Your task to perform on an android device: How much does a 2 bedroom apartment rent for in Boston? Image 0: 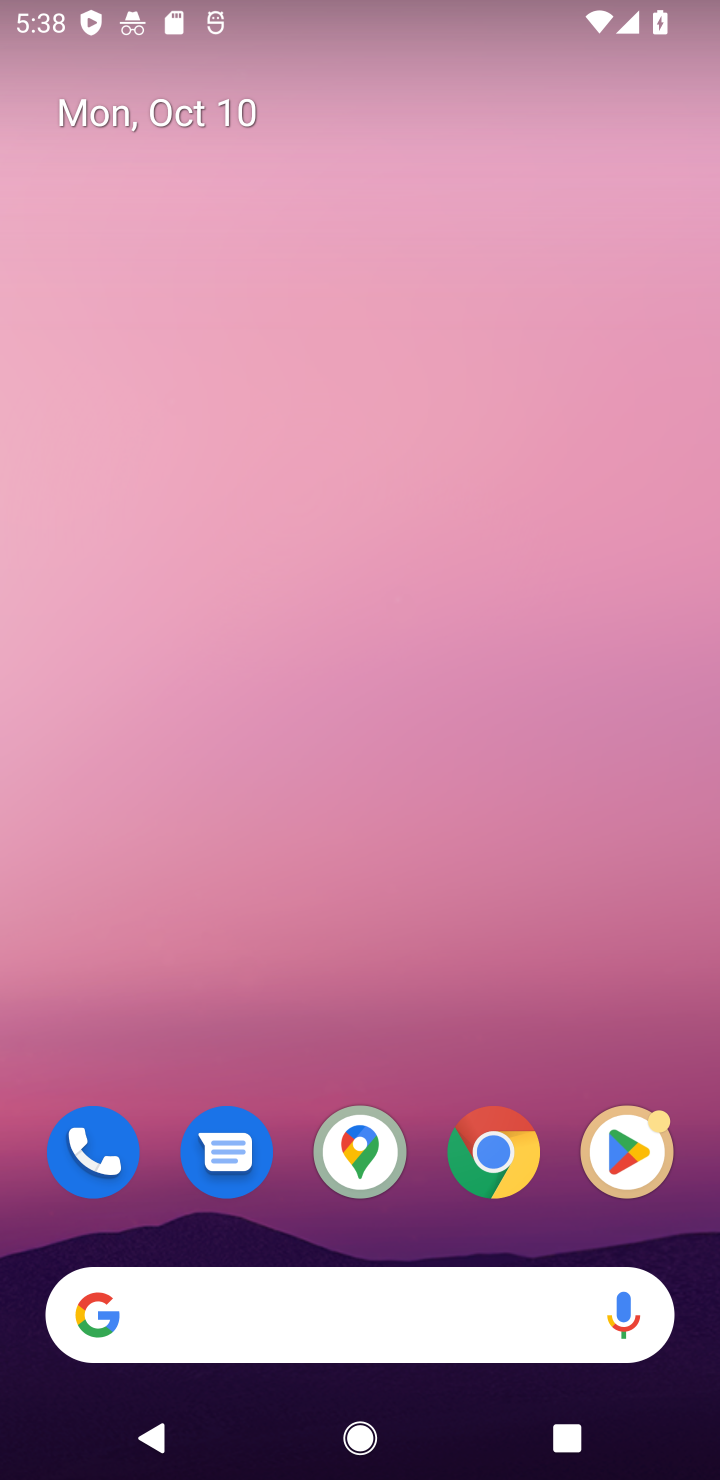
Step 0: click (496, 1153)
Your task to perform on an android device: How much does a 2 bedroom apartment rent for in Boston? Image 1: 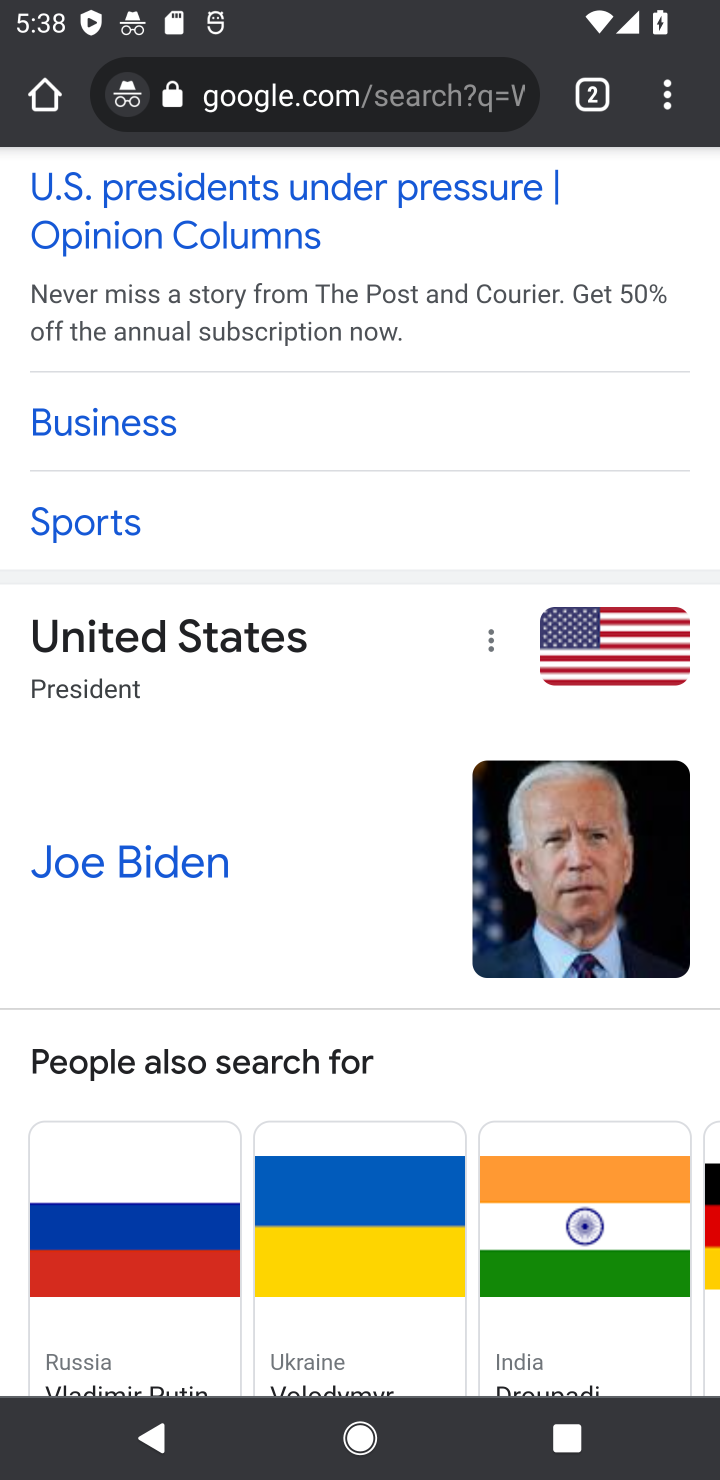
Step 1: click (404, 93)
Your task to perform on an android device: How much does a 2 bedroom apartment rent for in Boston? Image 2: 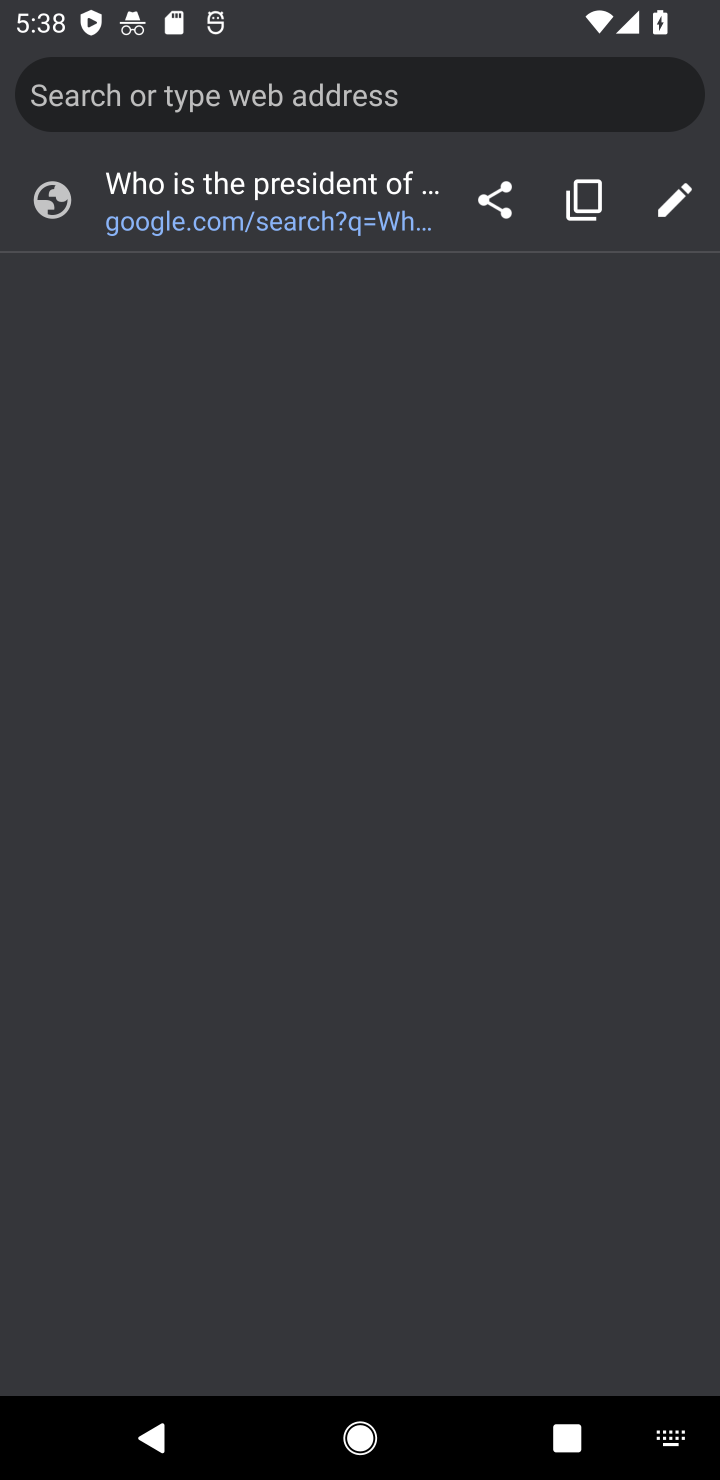
Step 2: type "How much does a 2 bedroom apartment rent for in Boston?"
Your task to perform on an android device: How much does a 2 bedroom apartment rent for in Boston? Image 3: 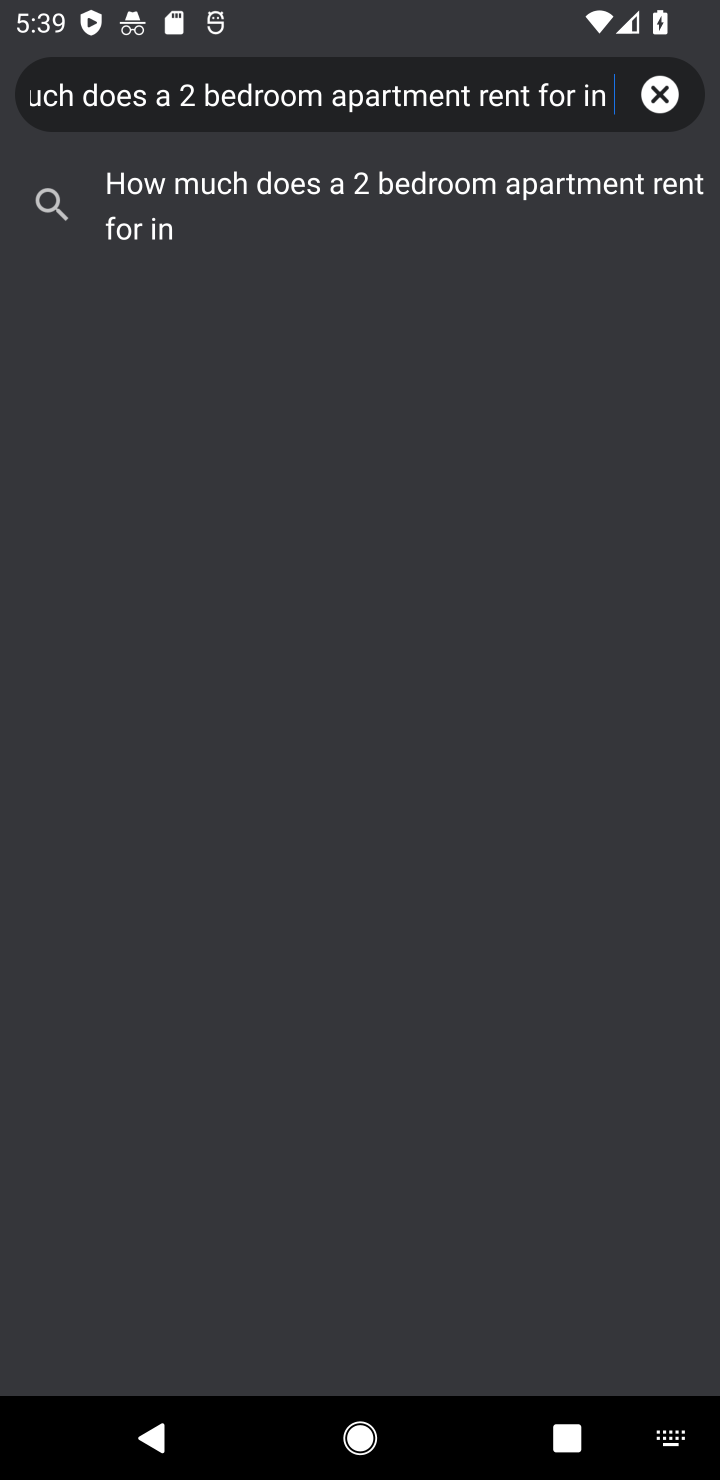
Step 3: type "Boston"
Your task to perform on an android device: How much does a 2 bedroom apartment rent for in Boston? Image 4: 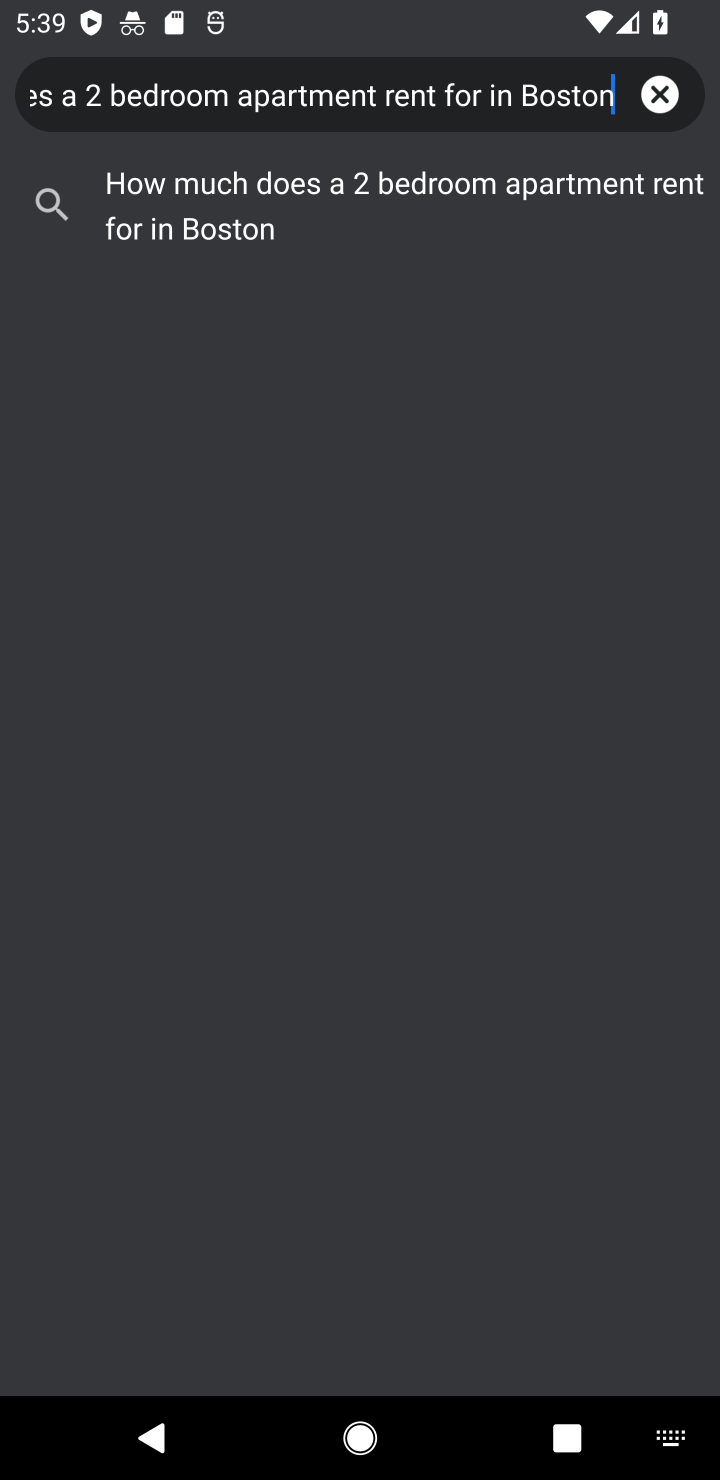
Step 4: click (294, 220)
Your task to perform on an android device: How much does a 2 bedroom apartment rent for in Boston? Image 5: 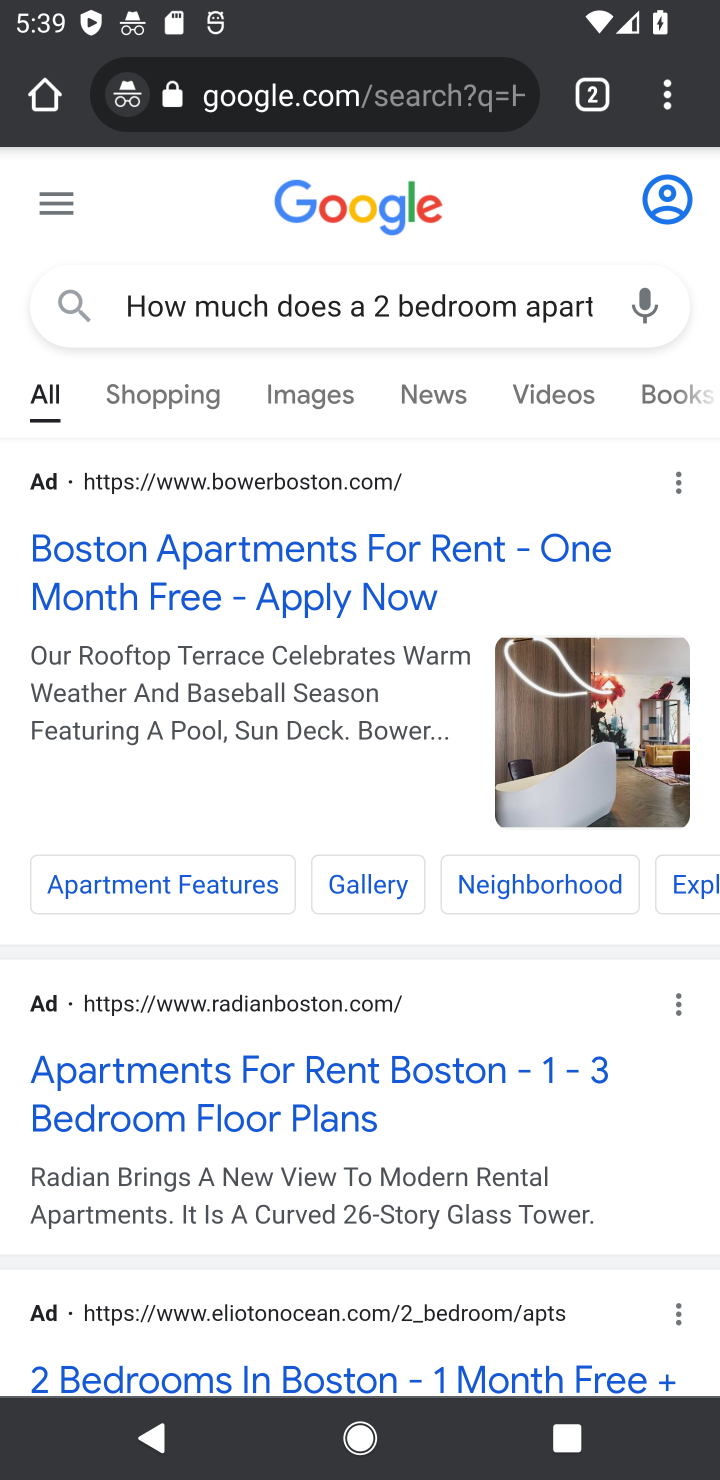
Step 5: drag from (246, 1267) to (503, 718)
Your task to perform on an android device: How much does a 2 bedroom apartment rent for in Boston? Image 6: 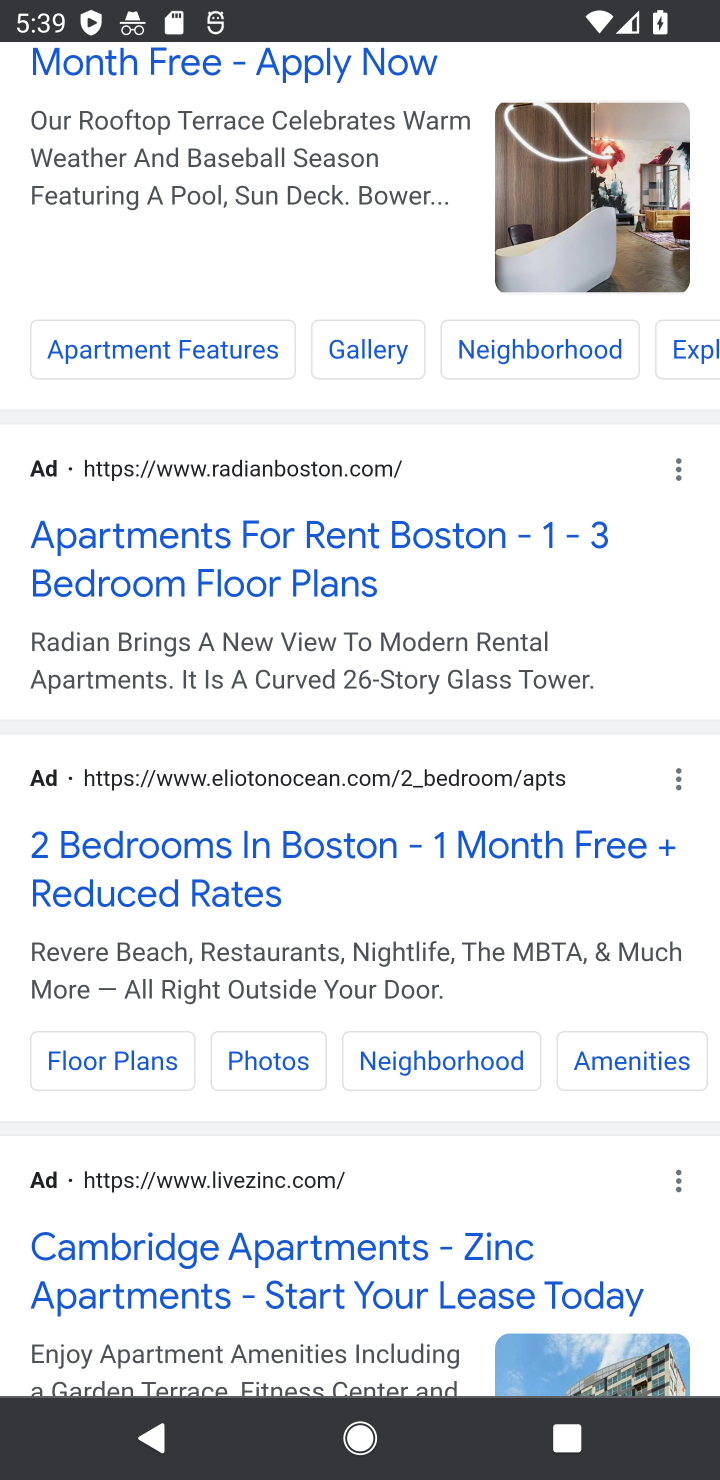
Step 6: drag from (258, 1272) to (429, 821)
Your task to perform on an android device: How much does a 2 bedroom apartment rent for in Boston? Image 7: 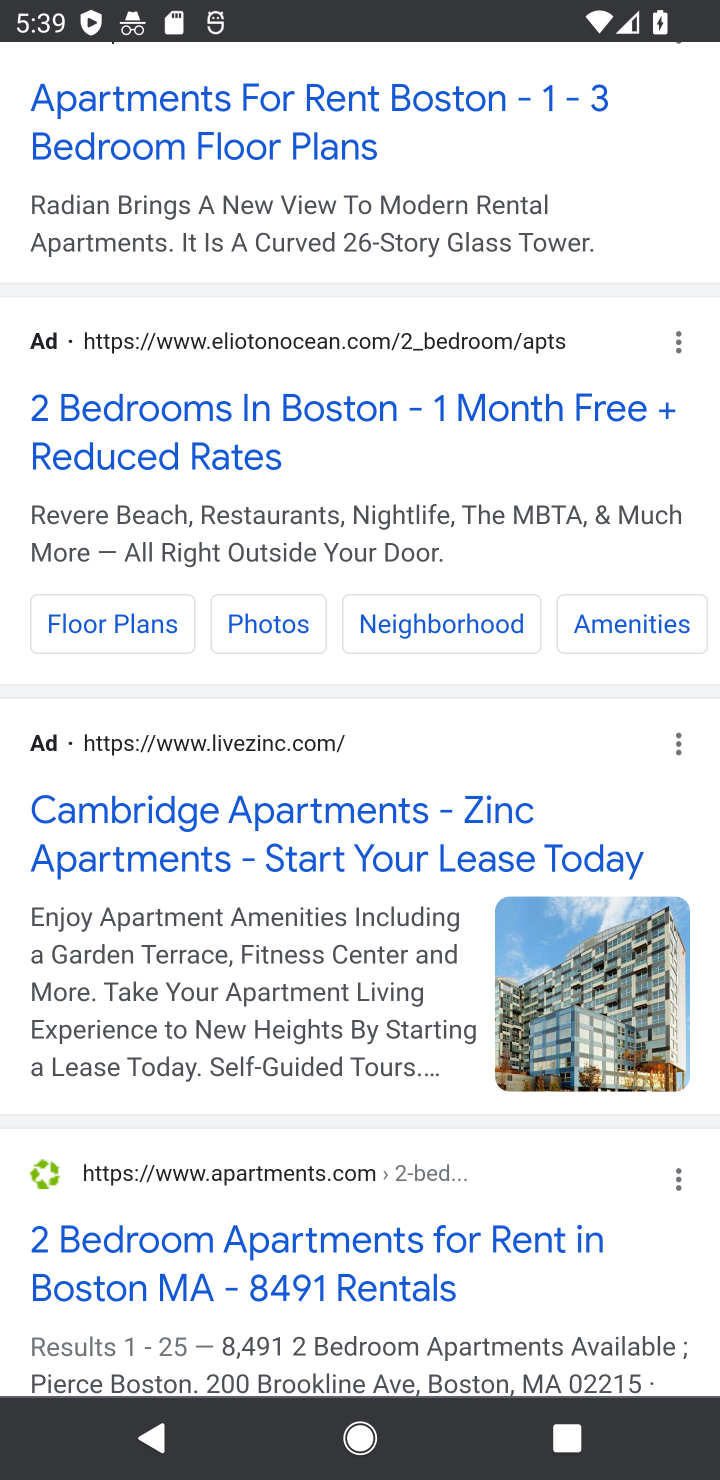
Step 7: drag from (230, 1281) to (394, 726)
Your task to perform on an android device: How much does a 2 bedroom apartment rent for in Boston? Image 8: 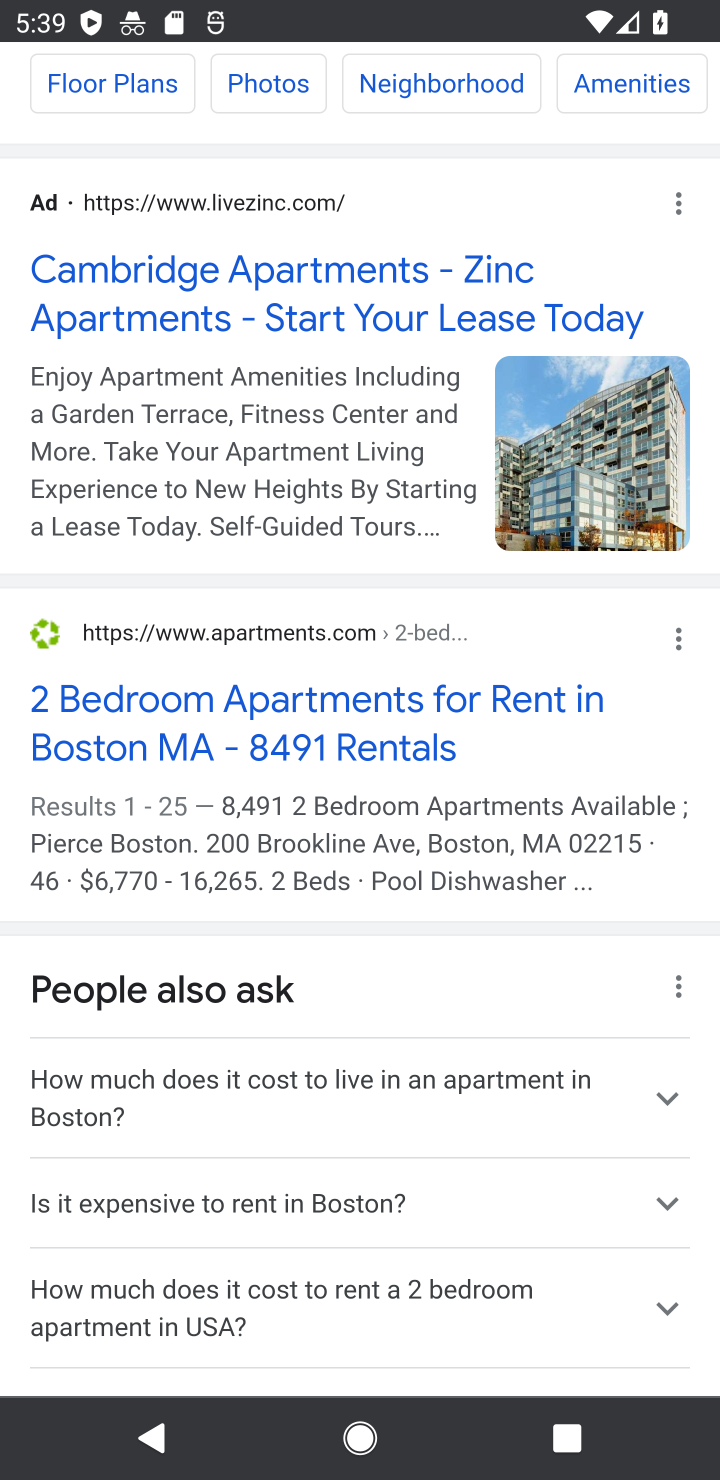
Step 8: click (250, 773)
Your task to perform on an android device: How much does a 2 bedroom apartment rent for in Boston? Image 9: 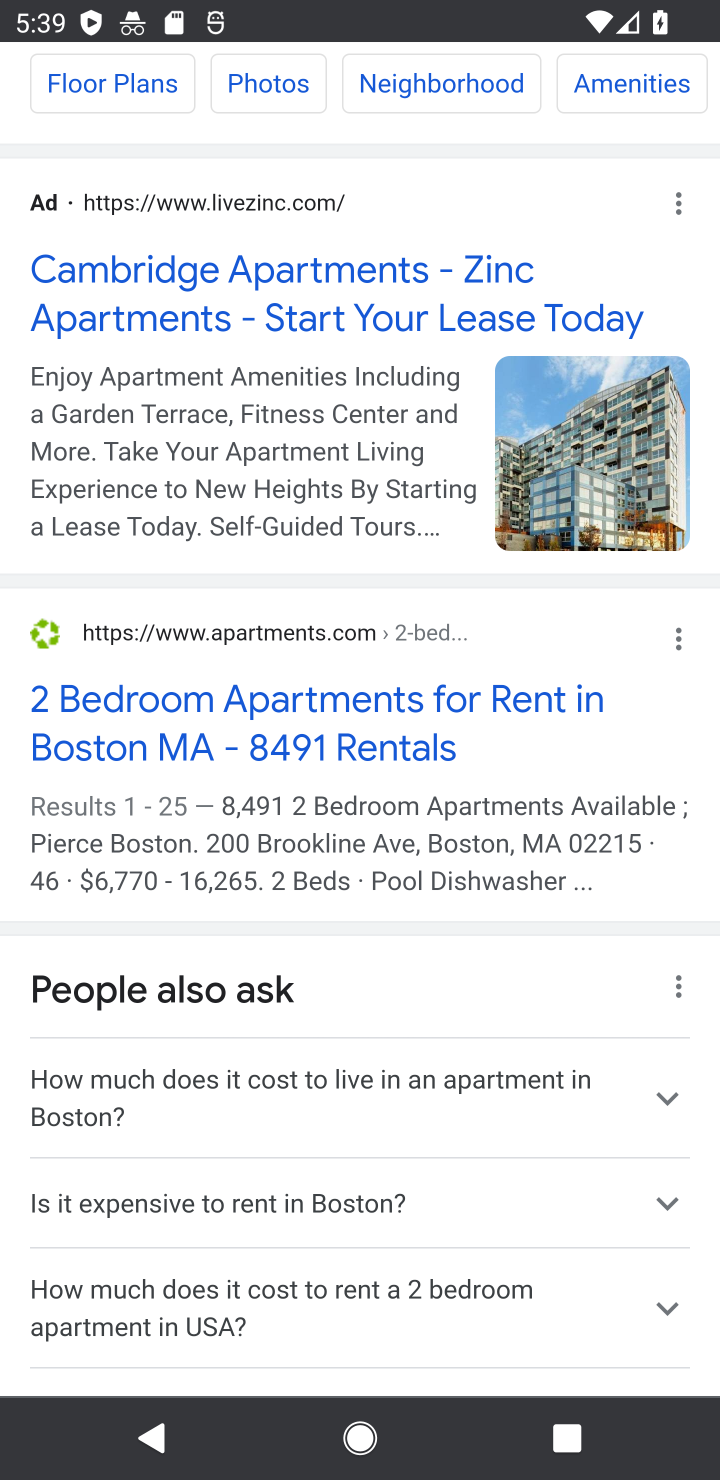
Step 9: drag from (379, 1304) to (573, 782)
Your task to perform on an android device: How much does a 2 bedroom apartment rent for in Boston? Image 10: 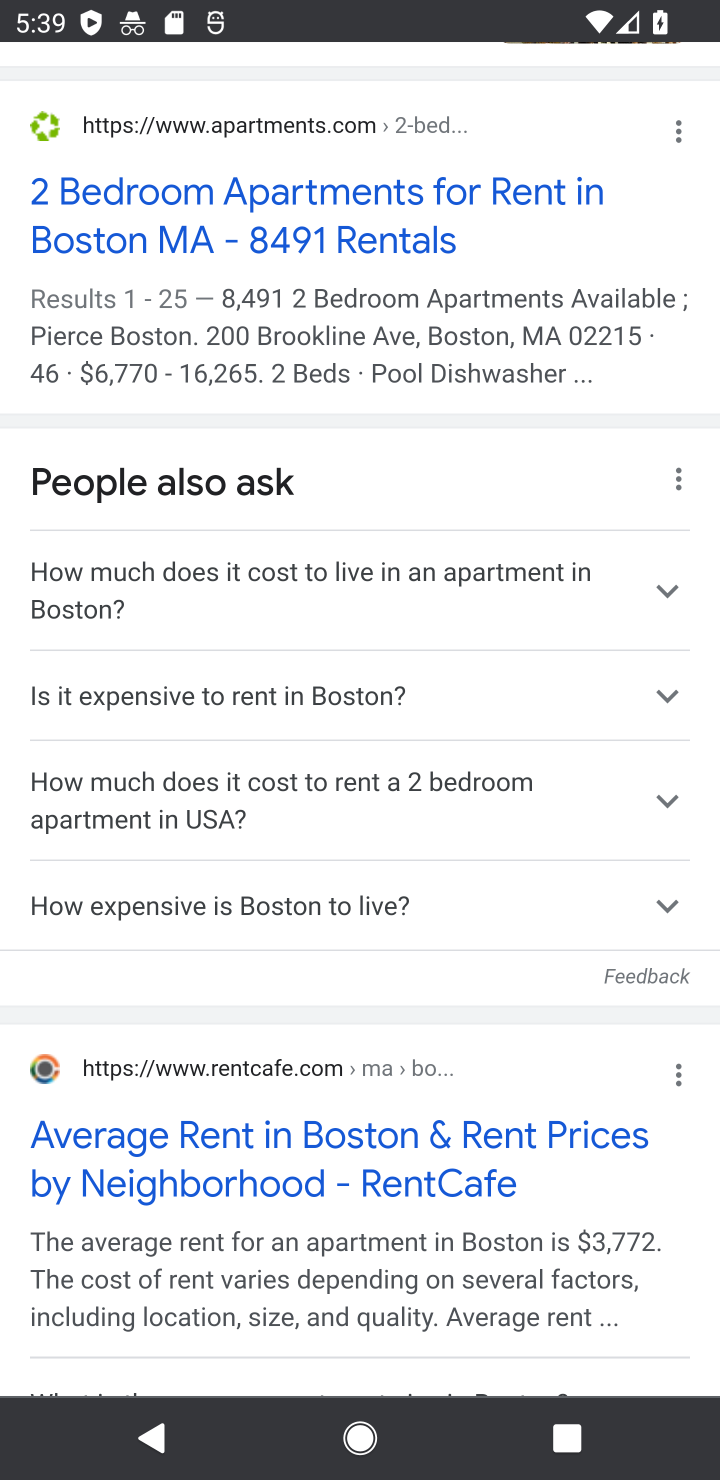
Step 10: drag from (374, 594) to (240, 1279)
Your task to perform on an android device: How much does a 2 bedroom apartment rent for in Boston? Image 11: 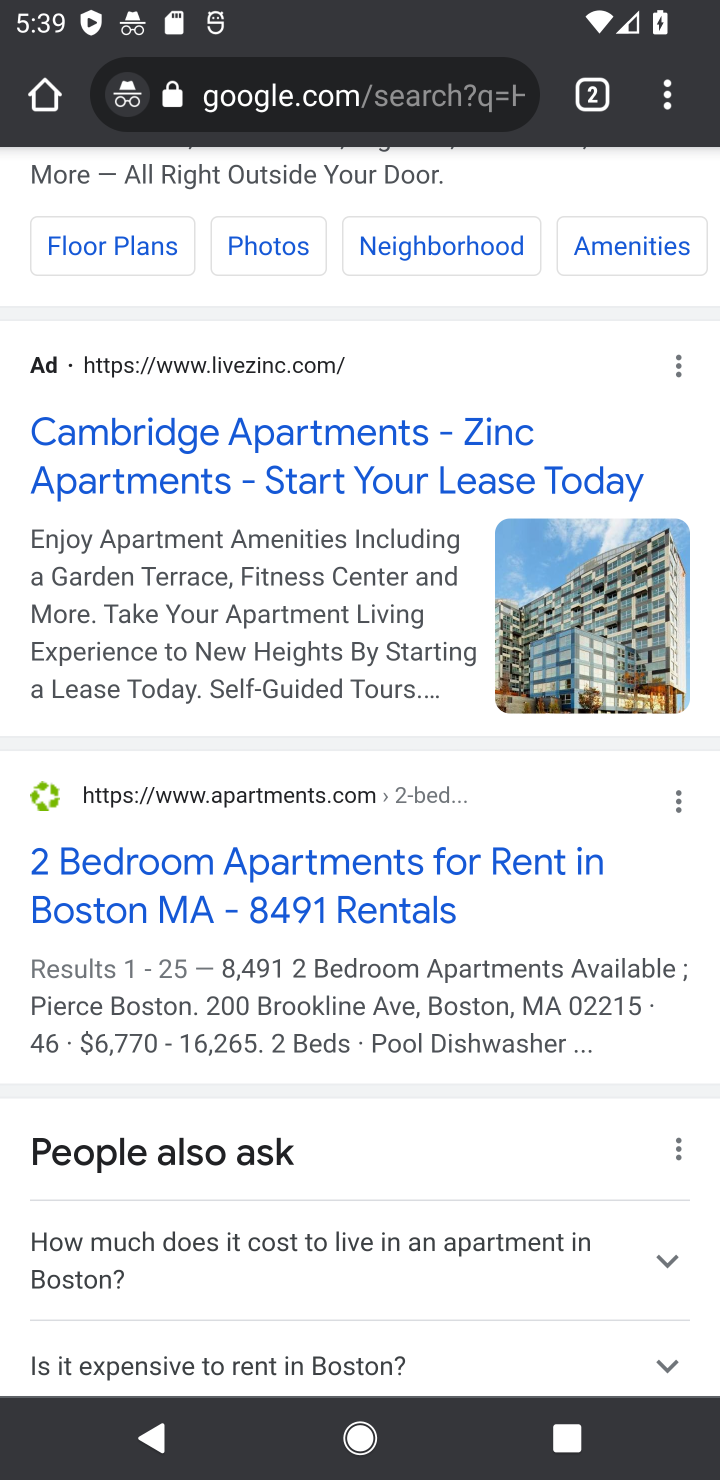
Step 11: click (179, 508)
Your task to perform on an android device: How much does a 2 bedroom apartment rent for in Boston? Image 12: 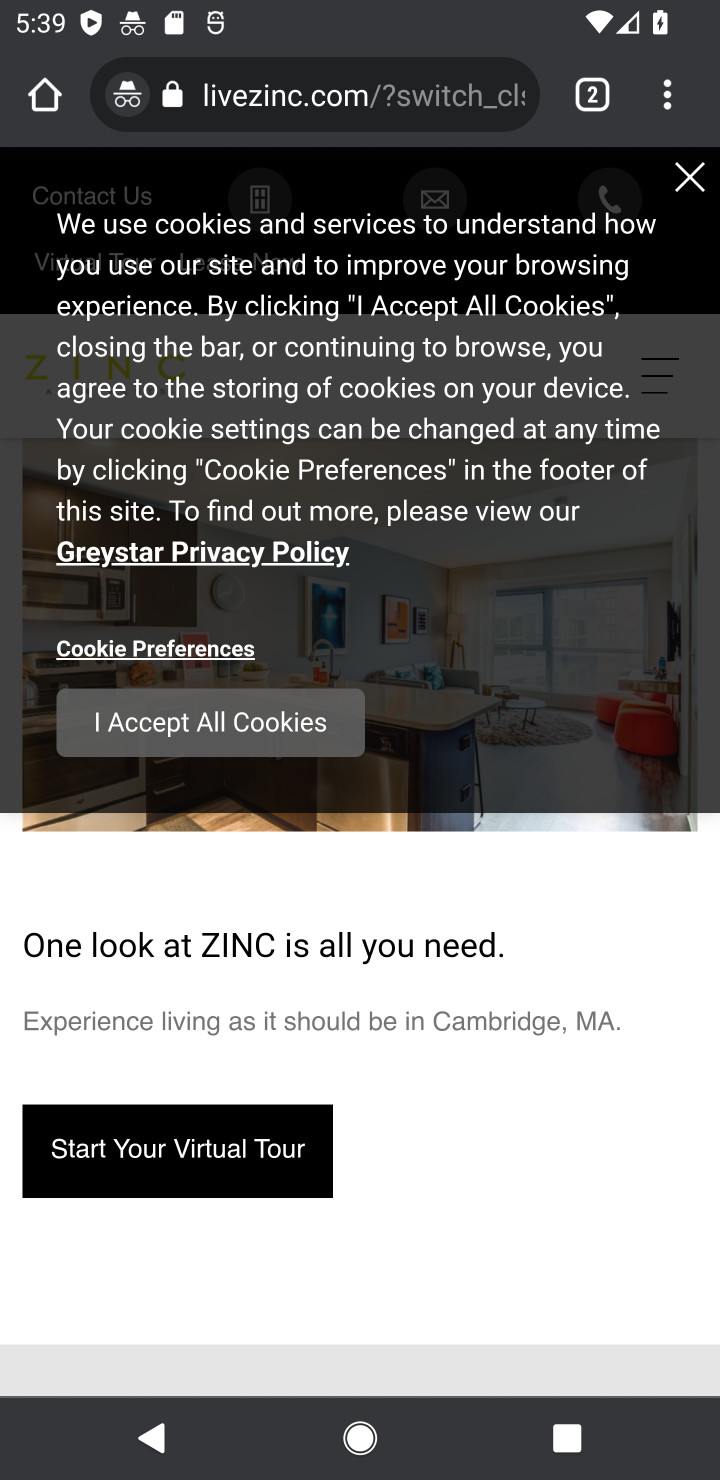
Step 12: click (688, 184)
Your task to perform on an android device: How much does a 2 bedroom apartment rent for in Boston? Image 13: 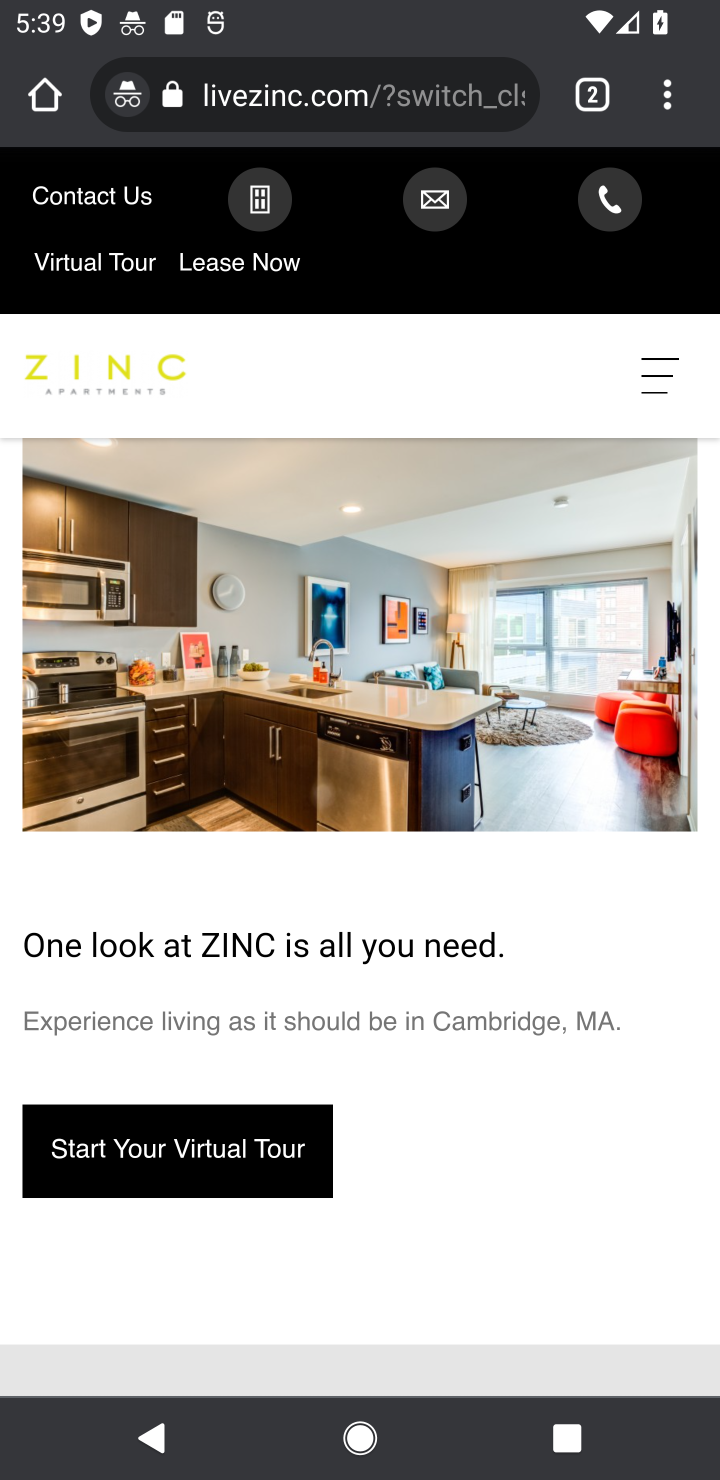
Step 13: task complete